Your task to perform on an android device: Open CNN.com Image 0: 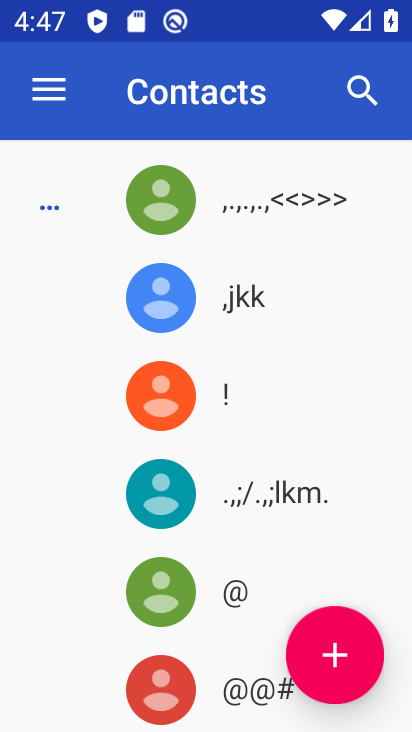
Step 0: press home button
Your task to perform on an android device: Open CNN.com Image 1: 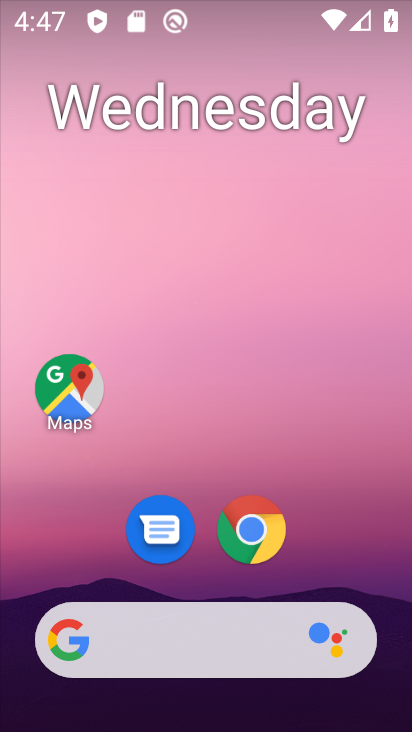
Step 1: click (162, 638)
Your task to perform on an android device: Open CNN.com Image 2: 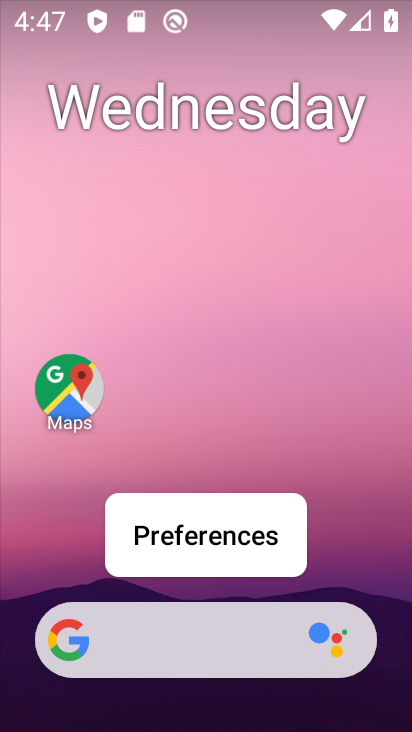
Step 2: click (163, 636)
Your task to perform on an android device: Open CNN.com Image 3: 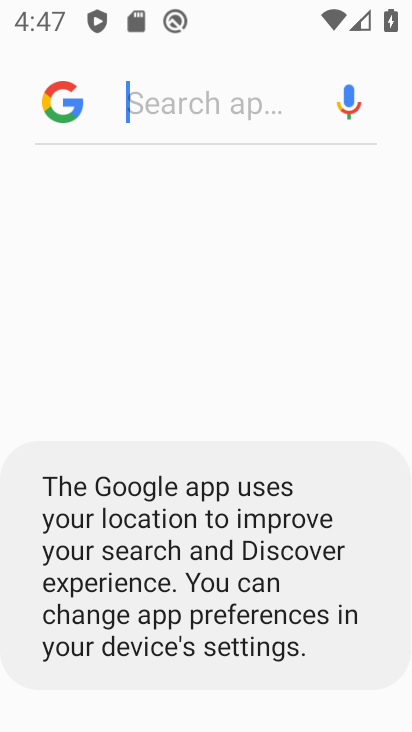
Step 3: click (164, 636)
Your task to perform on an android device: Open CNN.com Image 4: 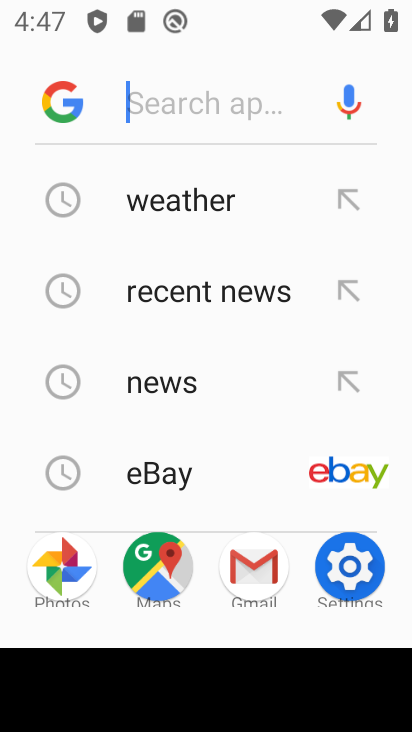
Step 4: type "CNN.com"
Your task to perform on an android device: Open CNN.com Image 5: 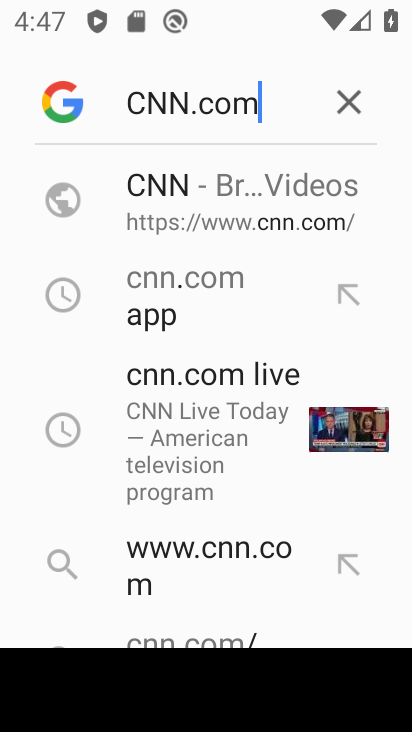
Step 5: click (237, 231)
Your task to perform on an android device: Open CNN.com Image 6: 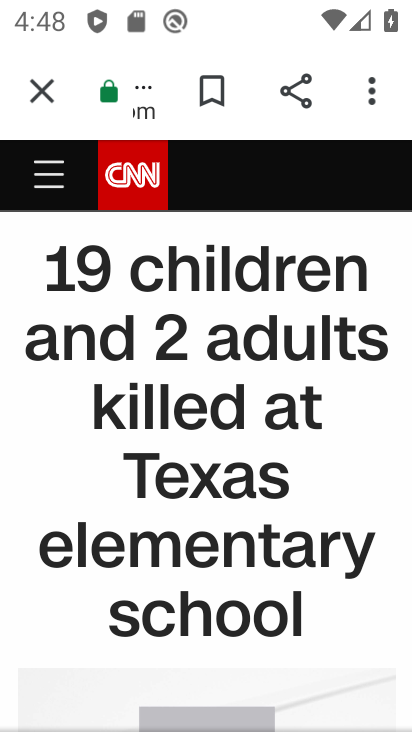
Step 6: task complete